Your task to perform on an android device: Open the calendar and show me this week's events Image 0: 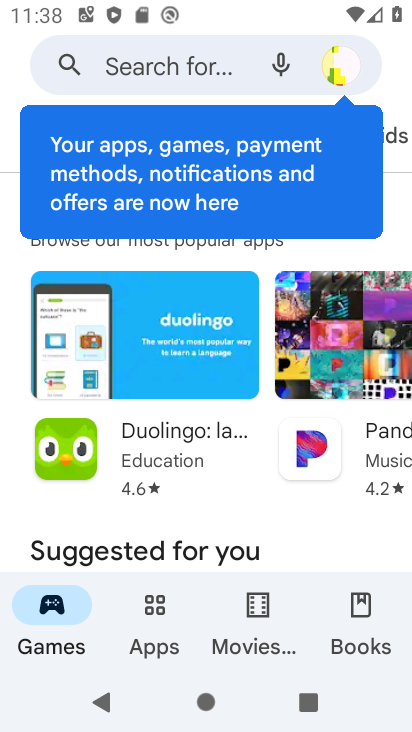
Step 0: press home button
Your task to perform on an android device: Open the calendar and show me this week's events Image 1: 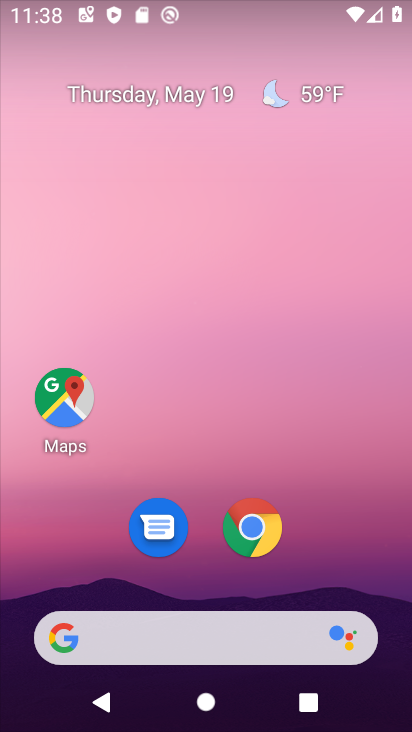
Step 1: drag from (359, 527) to (256, 9)
Your task to perform on an android device: Open the calendar and show me this week's events Image 2: 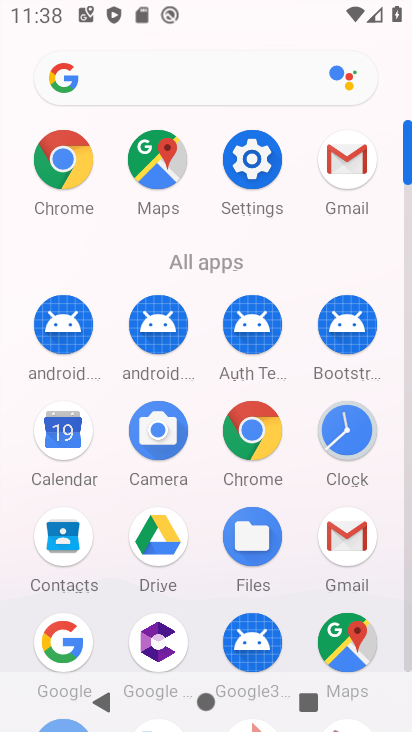
Step 2: click (62, 436)
Your task to perform on an android device: Open the calendar and show me this week's events Image 3: 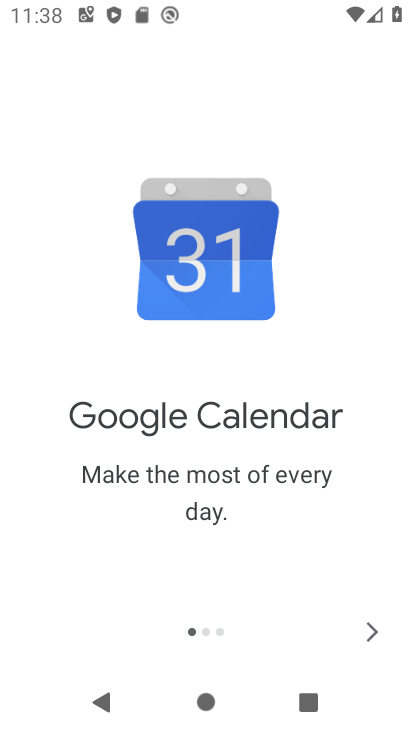
Step 3: click (375, 633)
Your task to perform on an android device: Open the calendar and show me this week's events Image 4: 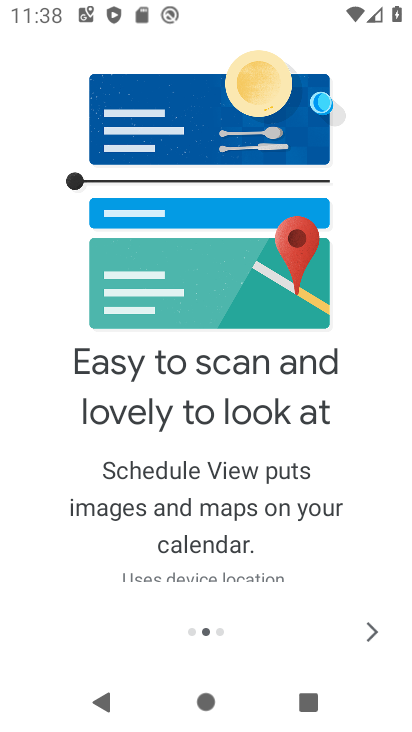
Step 4: click (375, 633)
Your task to perform on an android device: Open the calendar and show me this week's events Image 5: 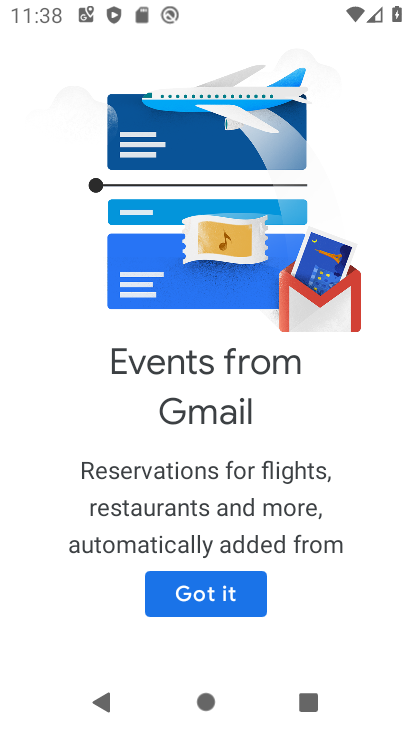
Step 5: click (196, 593)
Your task to perform on an android device: Open the calendar and show me this week's events Image 6: 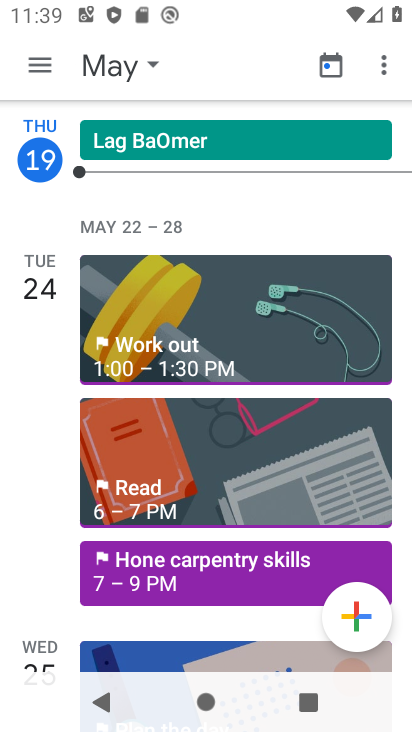
Step 6: click (40, 77)
Your task to perform on an android device: Open the calendar and show me this week's events Image 7: 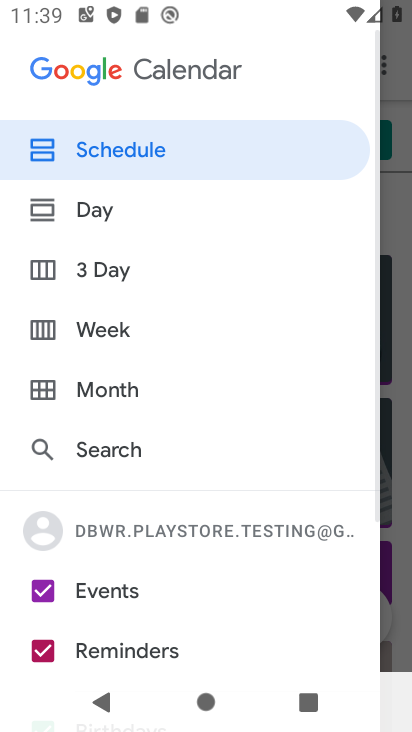
Step 7: drag from (191, 604) to (131, 121)
Your task to perform on an android device: Open the calendar and show me this week's events Image 8: 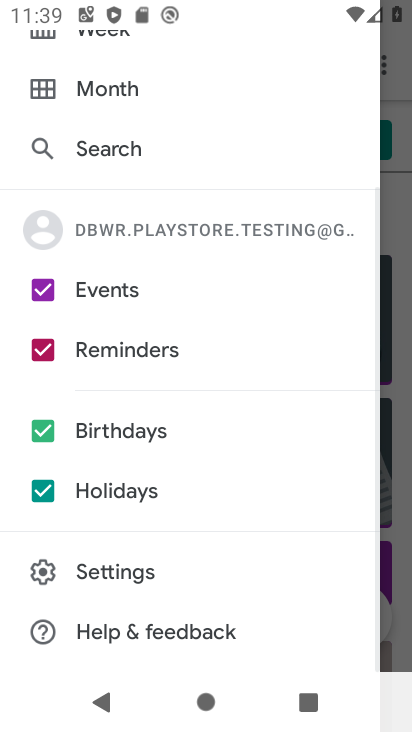
Step 8: click (48, 480)
Your task to perform on an android device: Open the calendar and show me this week's events Image 9: 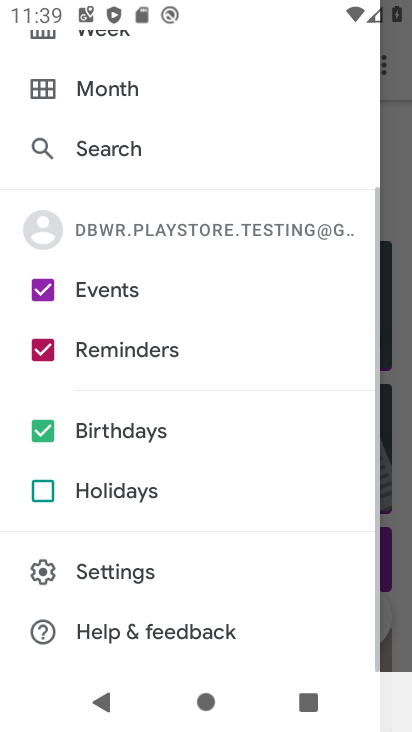
Step 9: click (39, 428)
Your task to perform on an android device: Open the calendar and show me this week's events Image 10: 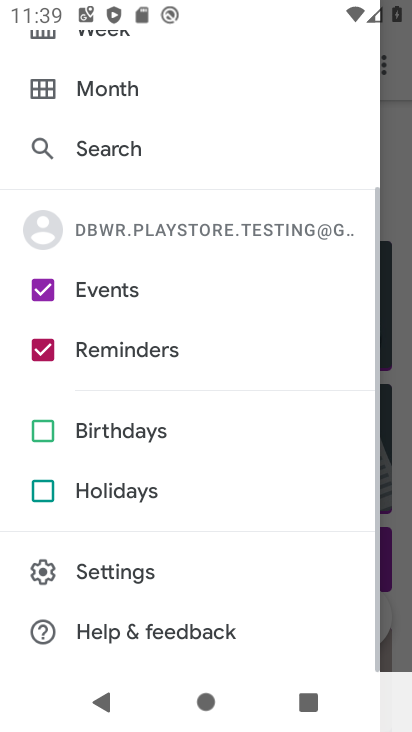
Step 10: click (39, 347)
Your task to perform on an android device: Open the calendar and show me this week's events Image 11: 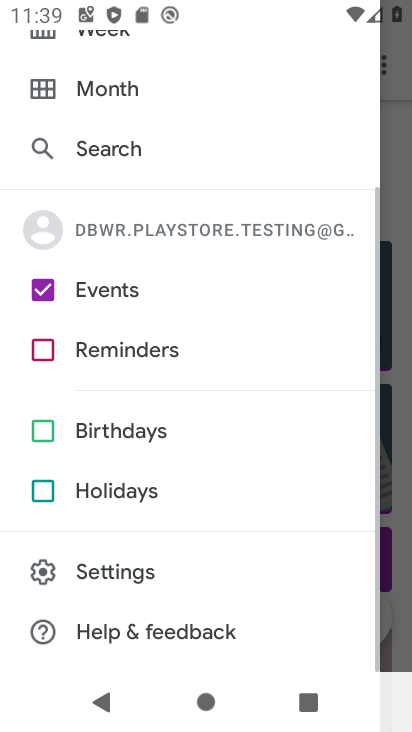
Step 11: drag from (191, 140) to (231, 545)
Your task to perform on an android device: Open the calendar and show me this week's events Image 12: 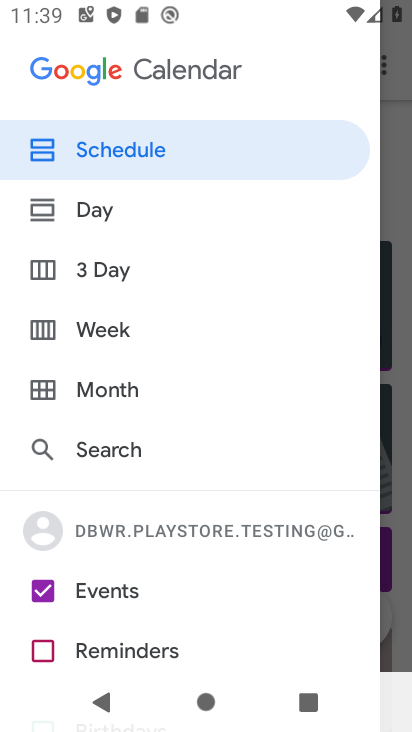
Step 12: click (103, 334)
Your task to perform on an android device: Open the calendar and show me this week's events Image 13: 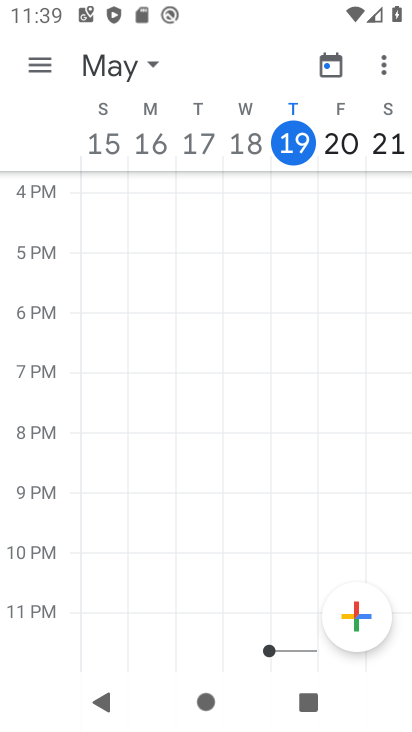
Step 13: task complete